Your task to perform on an android device: check storage Image 0: 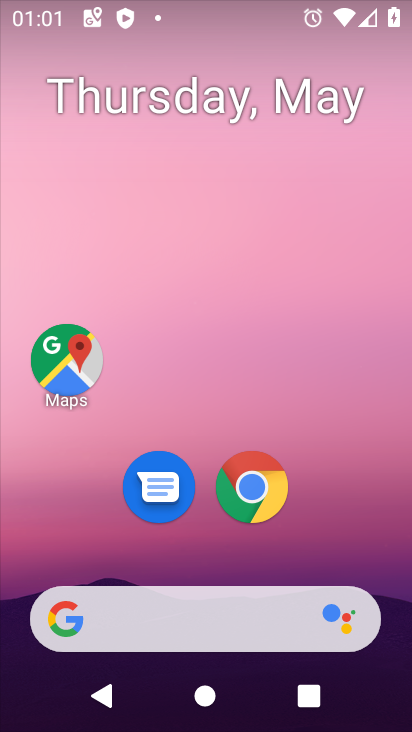
Step 0: drag from (369, 507) to (388, 10)
Your task to perform on an android device: check storage Image 1: 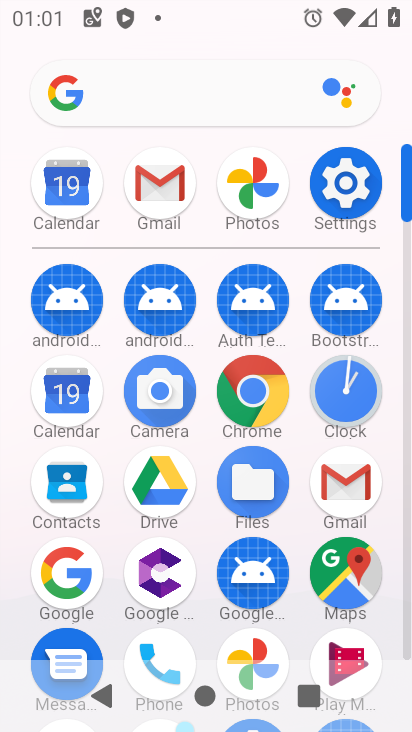
Step 1: click (346, 196)
Your task to perform on an android device: check storage Image 2: 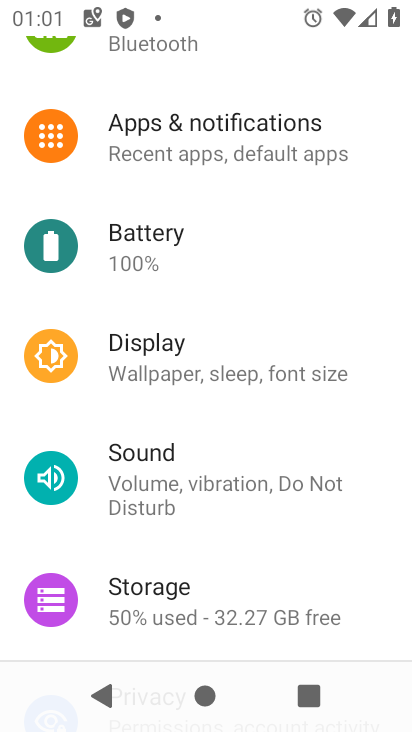
Step 2: drag from (314, 519) to (260, 233)
Your task to perform on an android device: check storage Image 3: 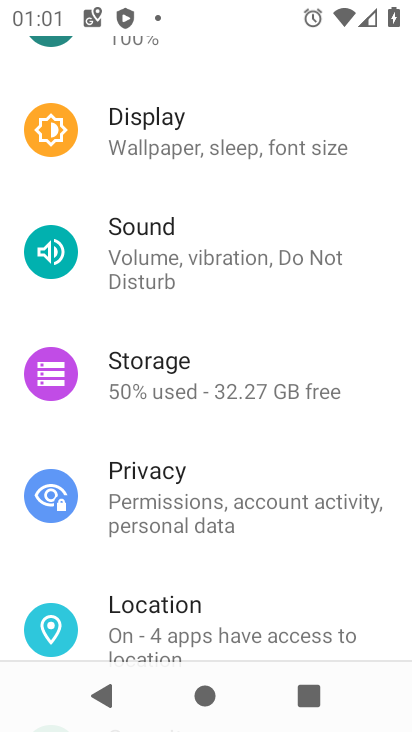
Step 3: click (147, 373)
Your task to perform on an android device: check storage Image 4: 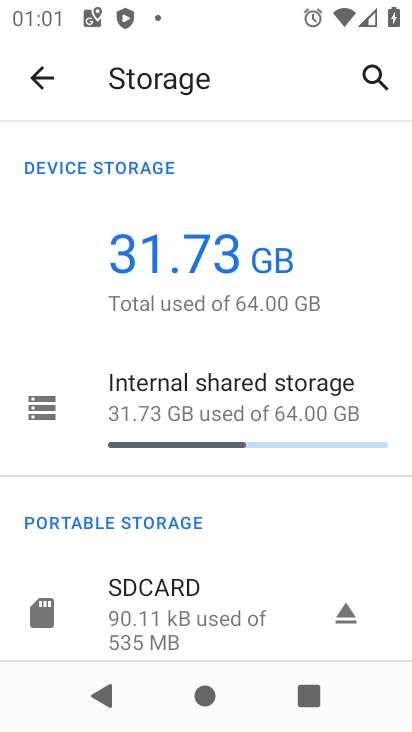
Step 4: click (176, 390)
Your task to perform on an android device: check storage Image 5: 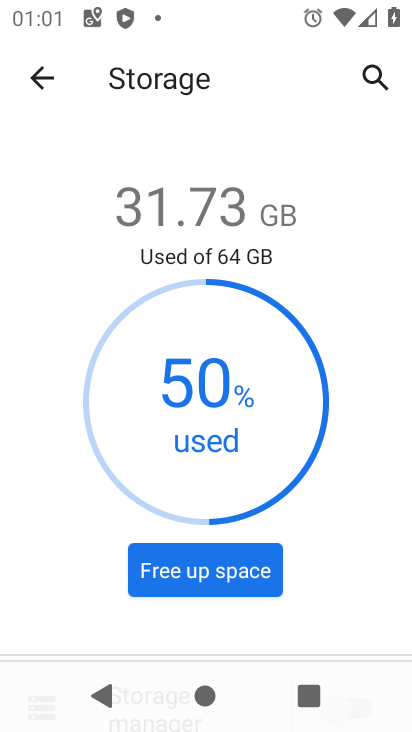
Step 5: task complete